Your task to perform on an android device: Look up the best rated gaming chair on Best Buy Image 0: 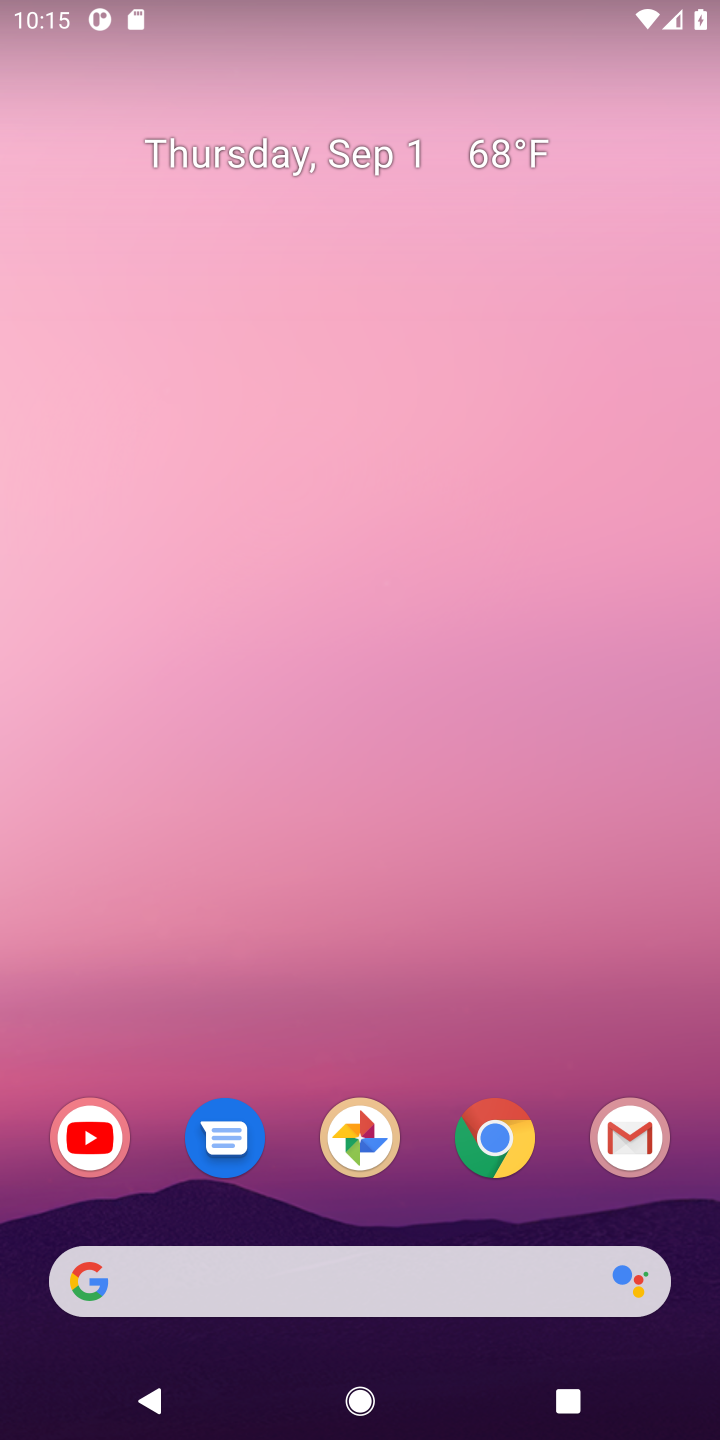
Step 0: click (491, 1153)
Your task to perform on an android device: Look up the best rated gaming chair on Best Buy Image 1: 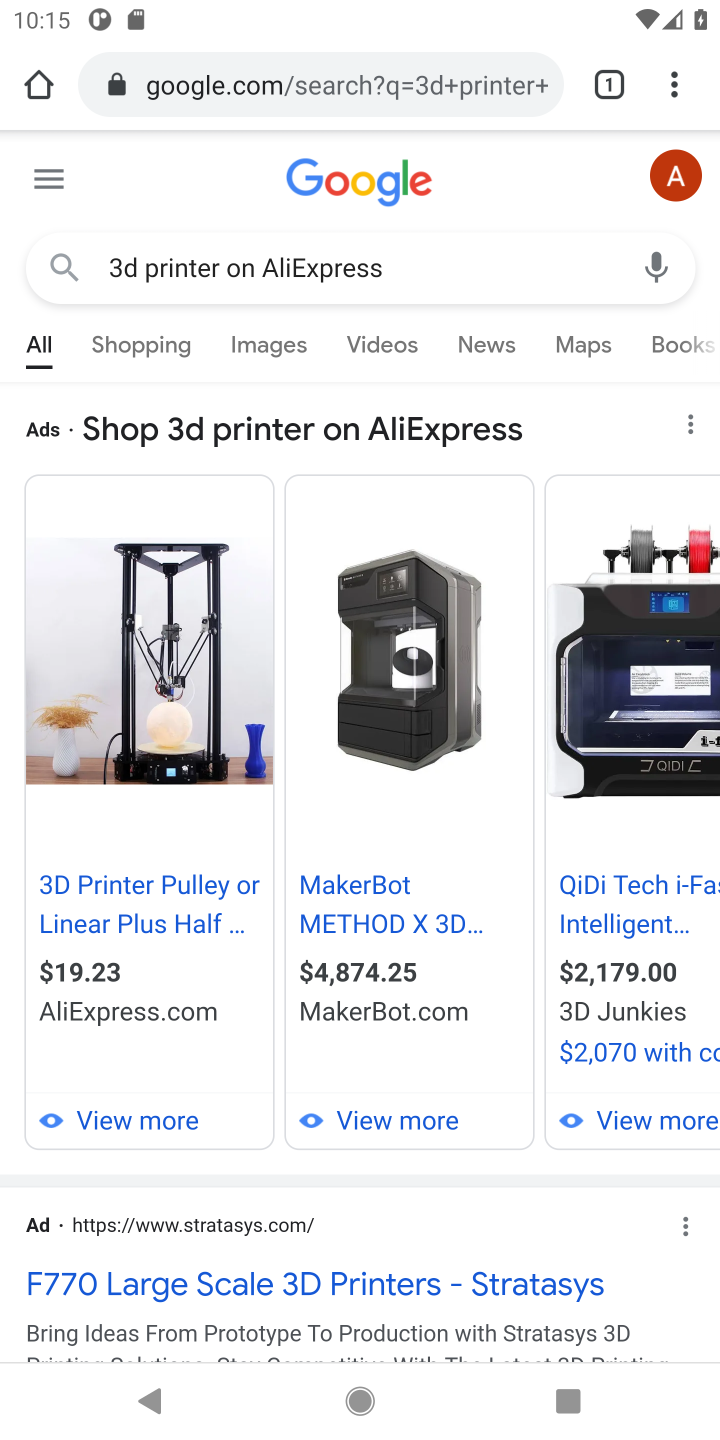
Step 1: click (338, 82)
Your task to perform on an android device: Look up the best rated gaming chair on Best Buy Image 2: 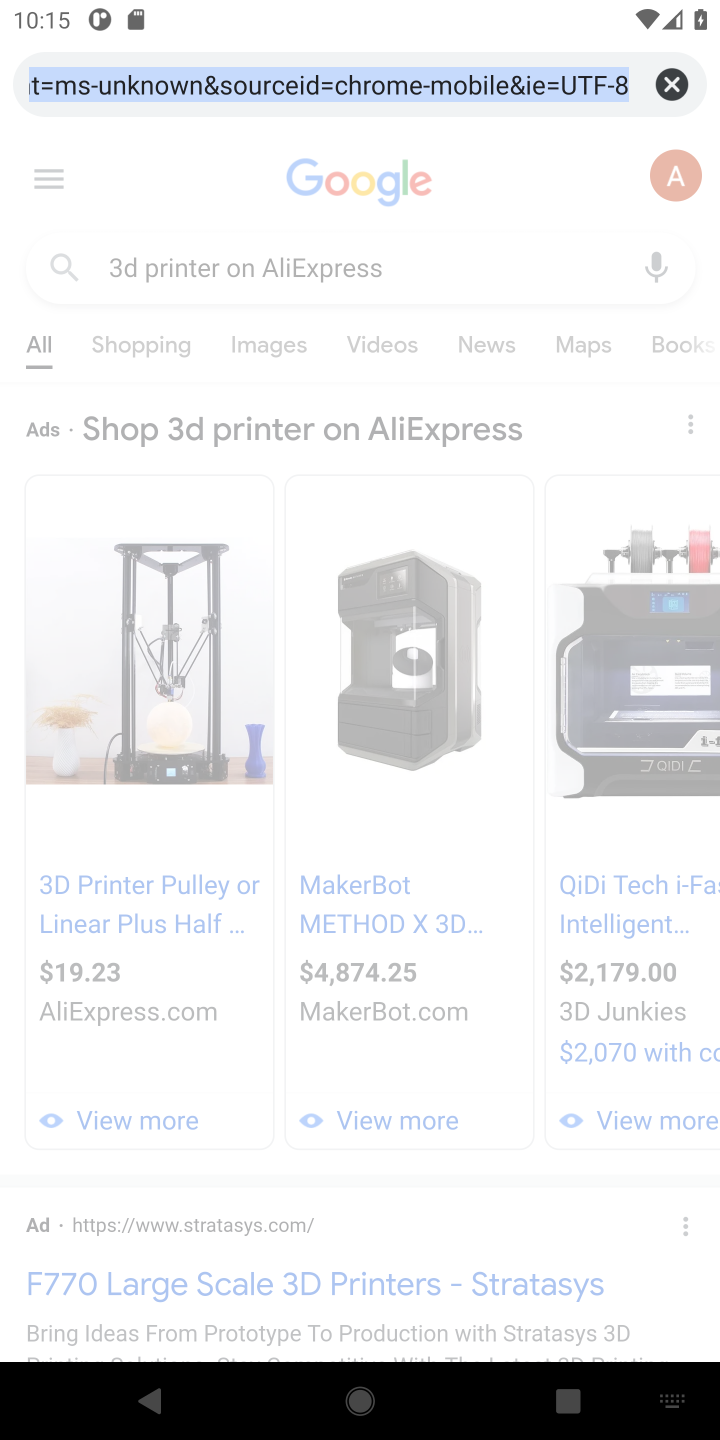
Step 2: type " the best rated gaming chair on Best Buy"
Your task to perform on an android device: Look up the best rated gaming chair on Best Buy Image 3: 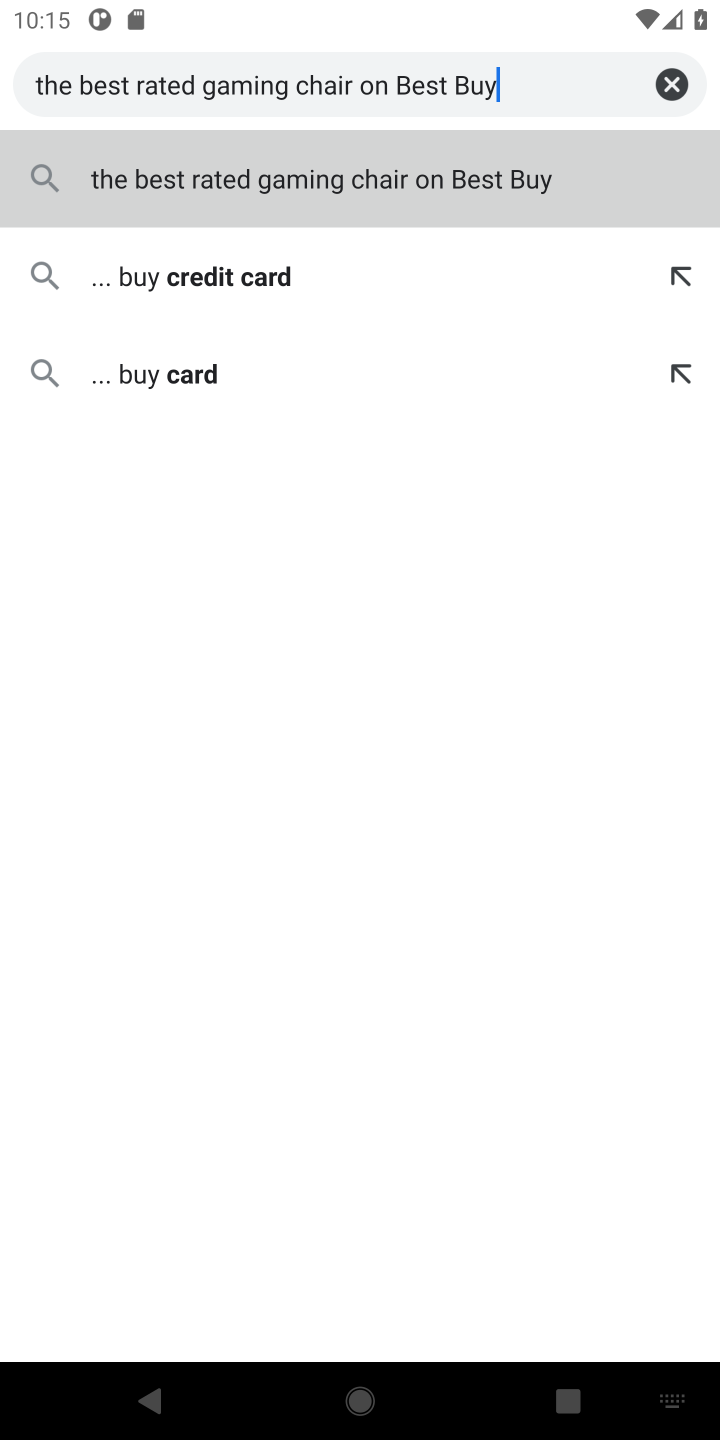
Step 3: click (389, 166)
Your task to perform on an android device: Look up the best rated gaming chair on Best Buy Image 4: 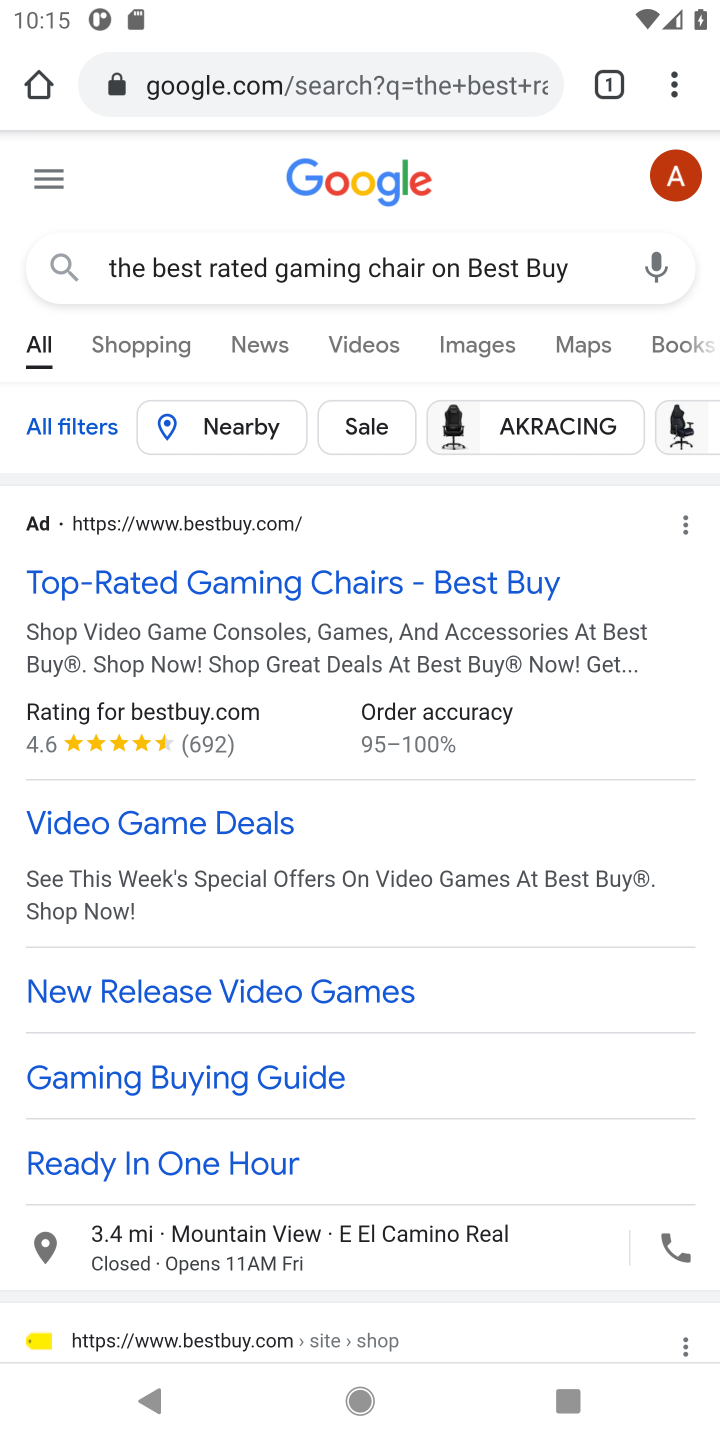
Step 4: click (245, 588)
Your task to perform on an android device: Look up the best rated gaming chair on Best Buy Image 5: 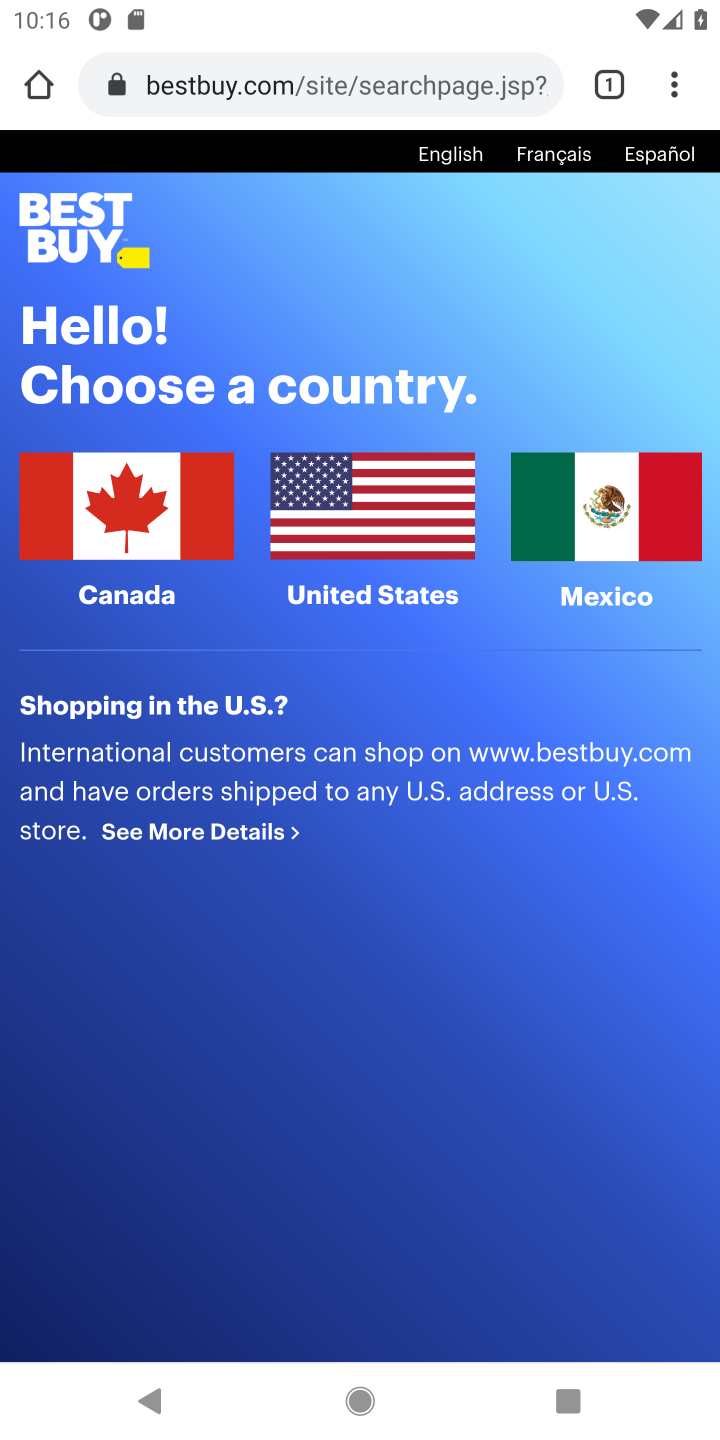
Step 5: task complete